Your task to perform on an android device: show emergency info Image 0: 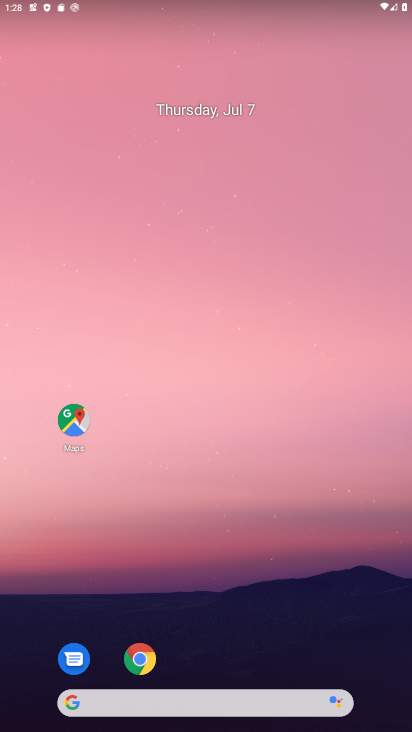
Step 0: drag from (229, 659) to (270, 109)
Your task to perform on an android device: show emergency info Image 1: 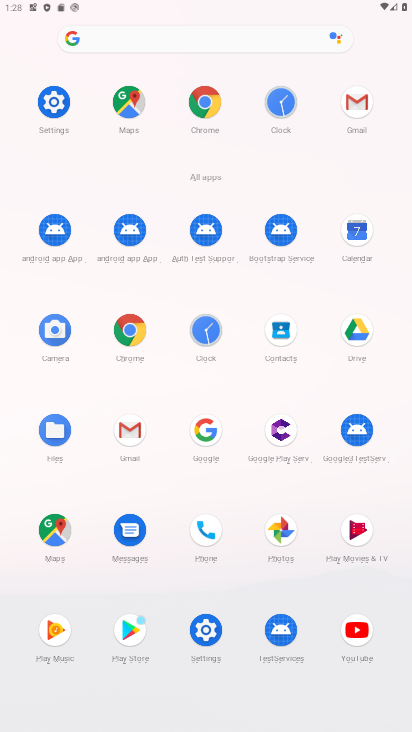
Step 1: click (50, 93)
Your task to perform on an android device: show emergency info Image 2: 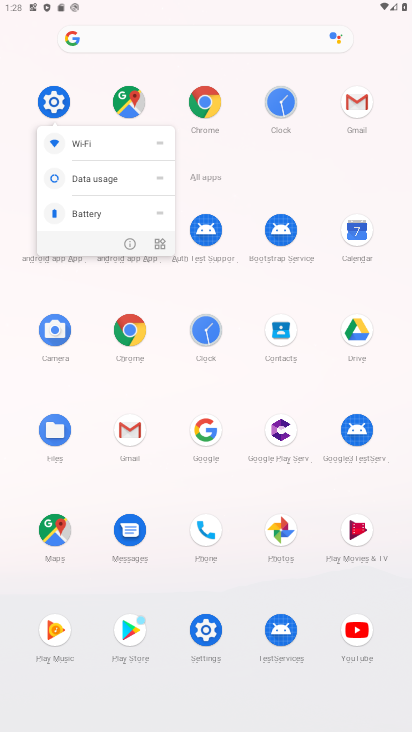
Step 2: click (47, 95)
Your task to perform on an android device: show emergency info Image 3: 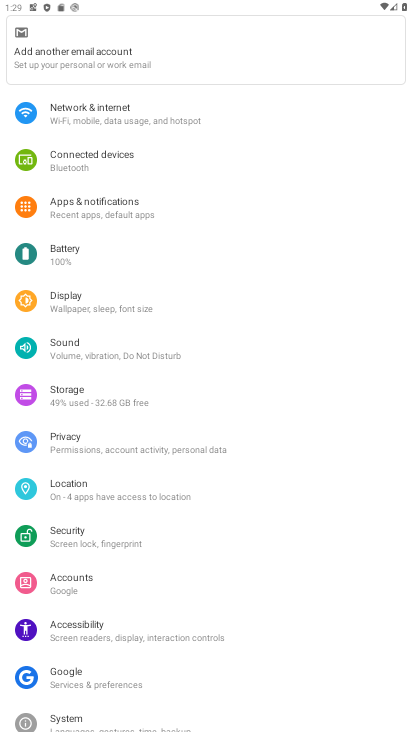
Step 3: drag from (142, 687) to (211, 139)
Your task to perform on an android device: show emergency info Image 4: 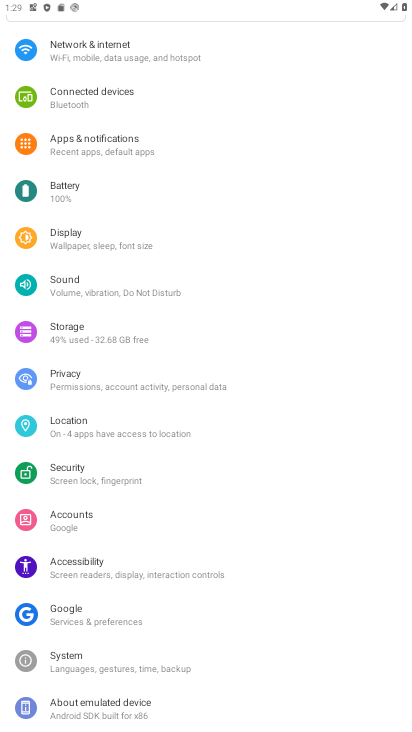
Step 4: click (163, 712)
Your task to perform on an android device: show emergency info Image 5: 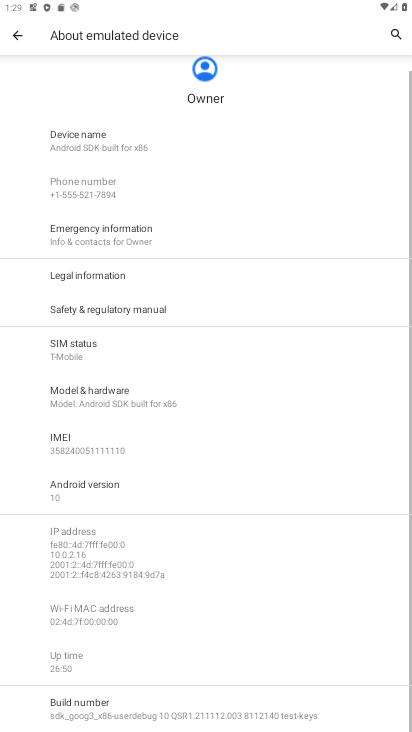
Step 5: click (172, 231)
Your task to perform on an android device: show emergency info Image 6: 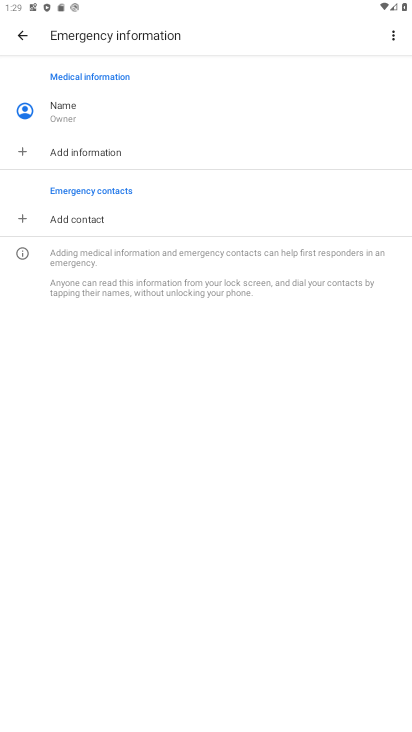
Step 6: task complete